Your task to perform on an android device: turn on sleep mode Image 0: 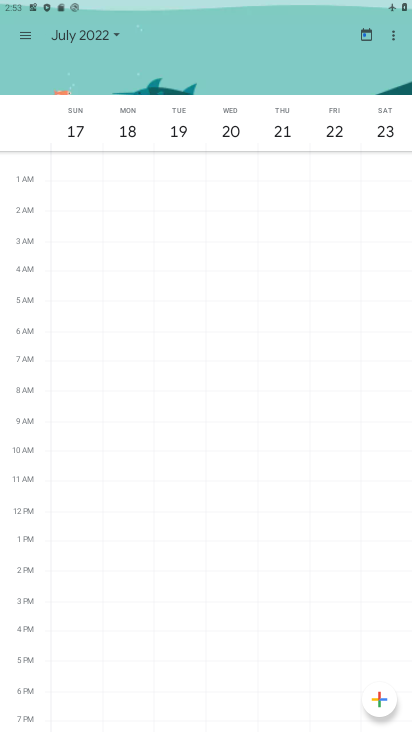
Step 0: press home button
Your task to perform on an android device: turn on sleep mode Image 1: 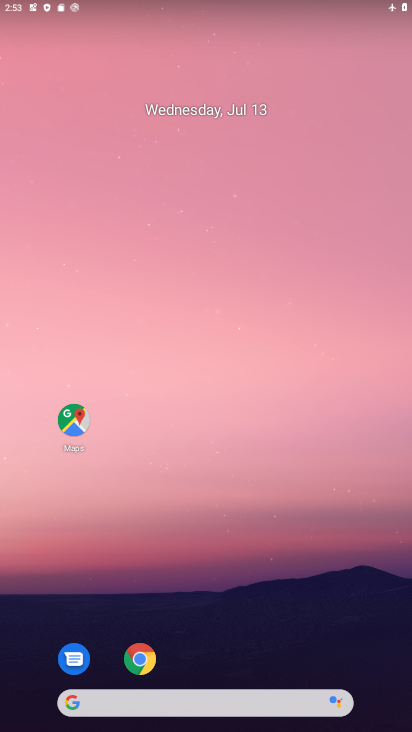
Step 1: drag from (358, 650) to (276, 81)
Your task to perform on an android device: turn on sleep mode Image 2: 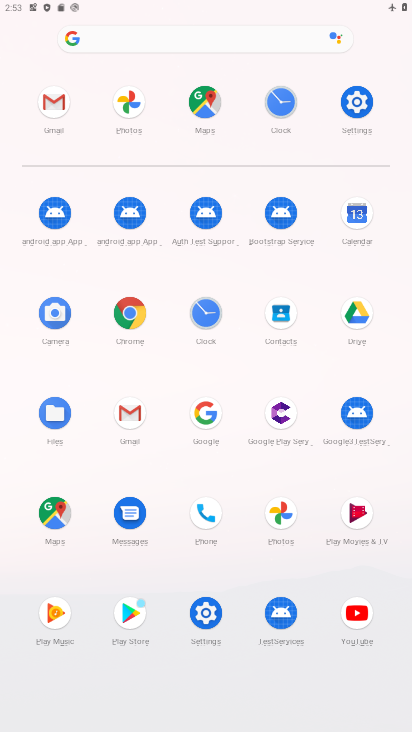
Step 2: click (205, 615)
Your task to perform on an android device: turn on sleep mode Image 3: 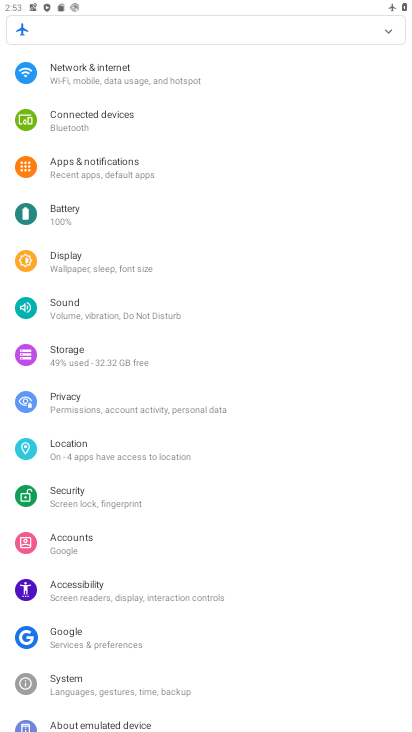
Step 3: click (63, 250)
Your task to perform on an android device: turn on sleep mode Image 4: 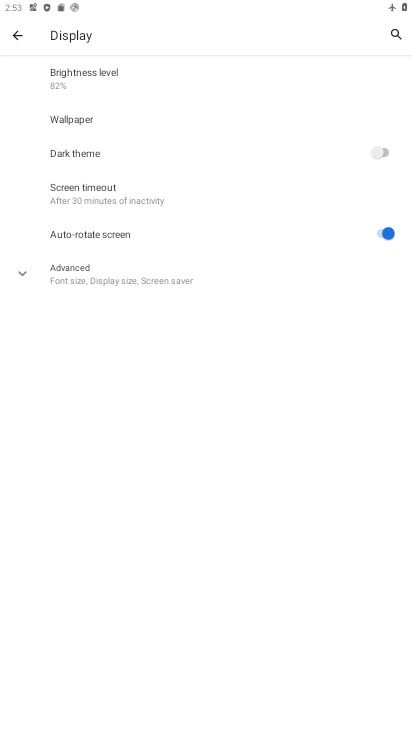
Step 4: click (22, 276)
Your task to perform on an android device: turn on sleep mode Image 5: 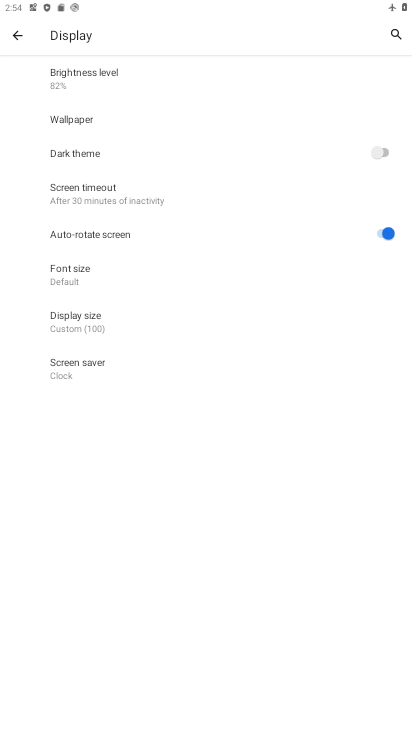
Step 5: task complete